Your task to perform on an android device: turn pop-ups on in chrome Image 0: 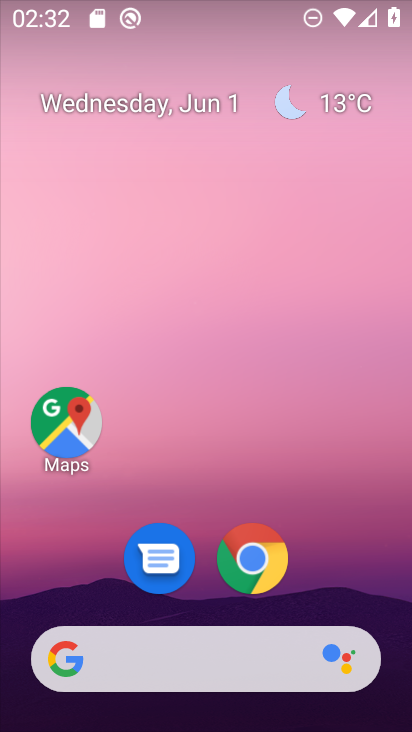
Step 0: click (251, 565)
Your task to perform on an android device: turn pop-ups on in chrome Image 1: 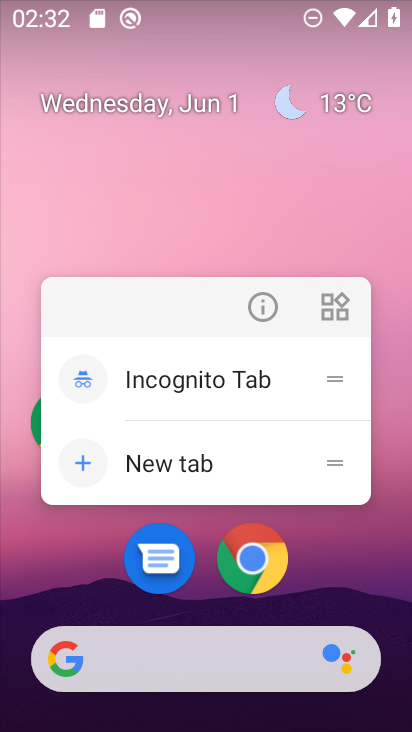
Step 1: click (251, 558)
Your task to perform on an android device: turn pop-ups on in chrome Image 2: 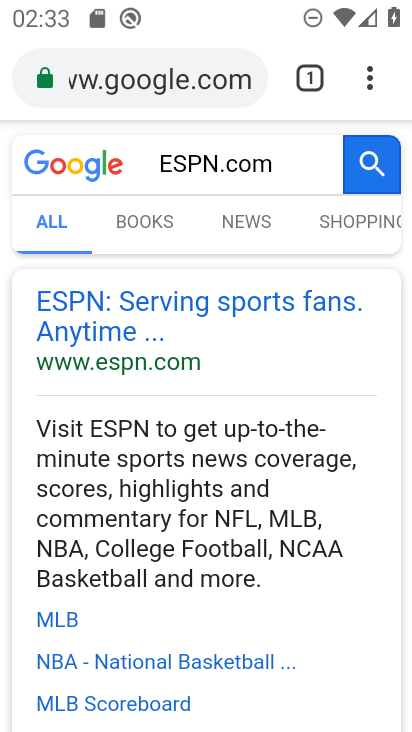
Step 2: click (366, 68)
Your task to perform on an android device: turn pop-ups on in chrome Image 3: 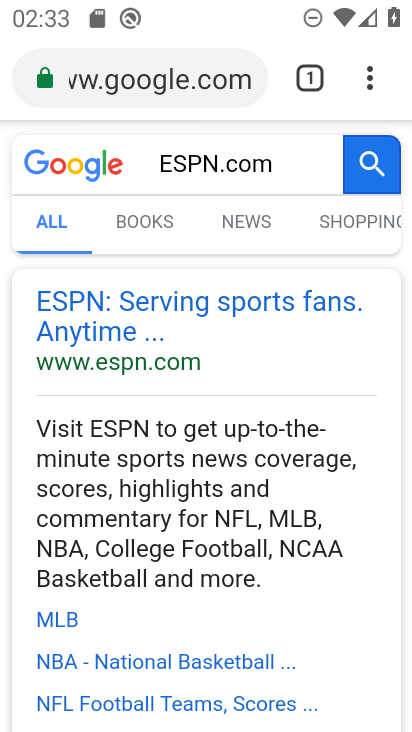
Step 3: click (370, 77)
Your task to perform on an android device: turn pop-ups on in chrome Image 4: 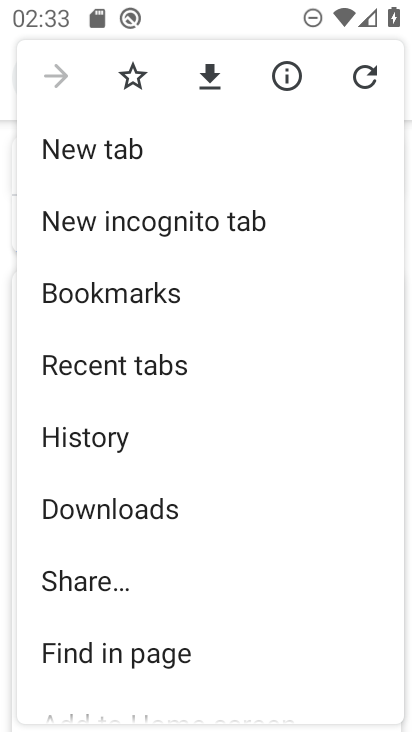
Step 4: drag from (201, 628) to (214, 332)
Your task to perform on an android device: turn pop-ups on in chrome Image 5: 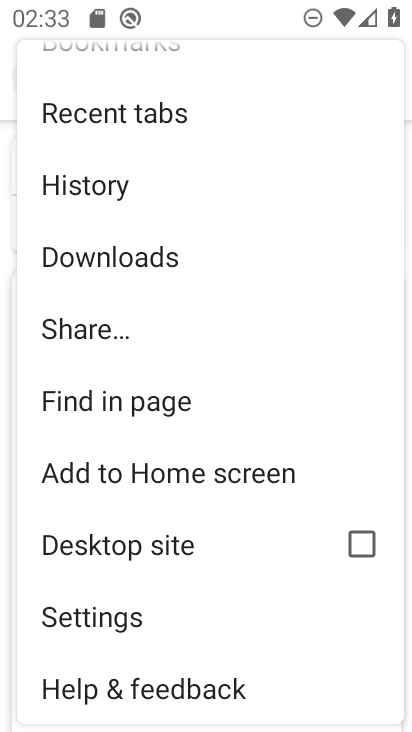
Step 5: click (124, 622)
Your task to perform on an android device: turn pop-ups on in chrome Image 6: 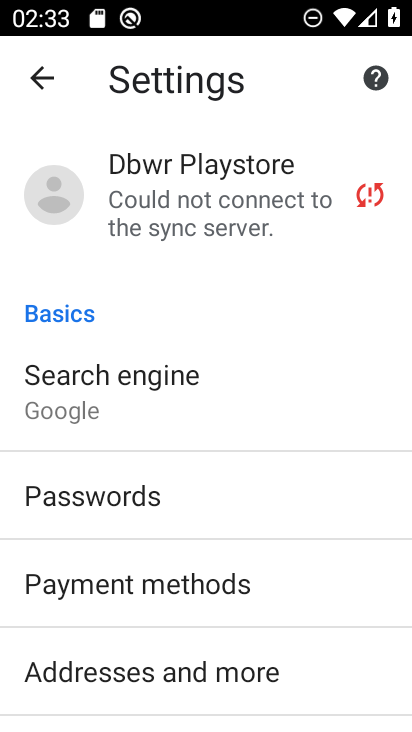
Step 6: drag from (328, 635) to (324, 237)
Your task to perform on an android device: turn pop-ups on in chrome Image 7: 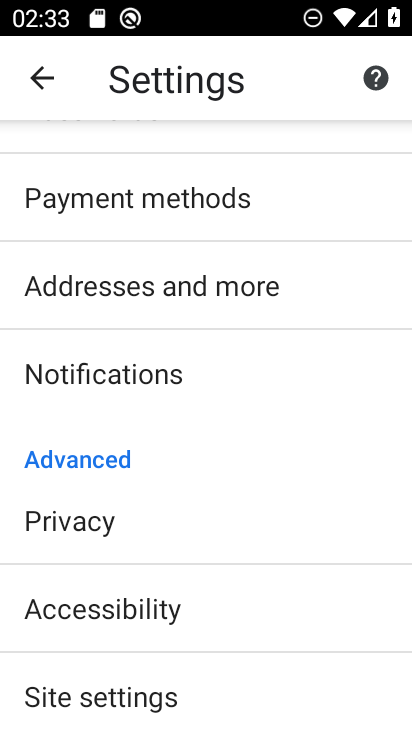
Step 7: drag from (286, 650) to (284, 334)
Your task to perform on an android device: turn pop-ups on in chrome Image 8: 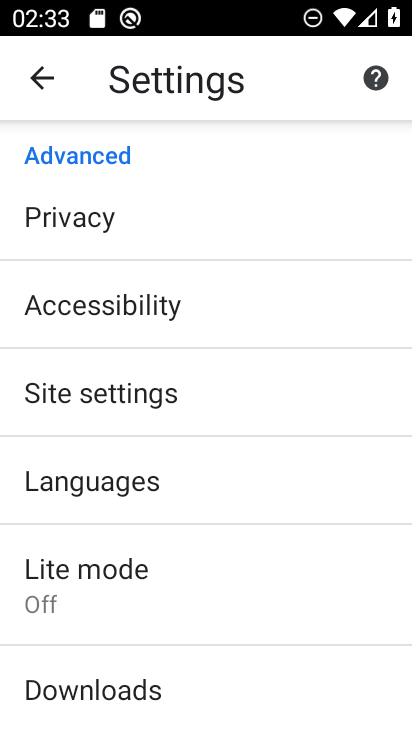
Step 8: drag from (266, 651) to (300, 354)
Your task to perform on an android device: turn pop-ups on in chrome Image 9: 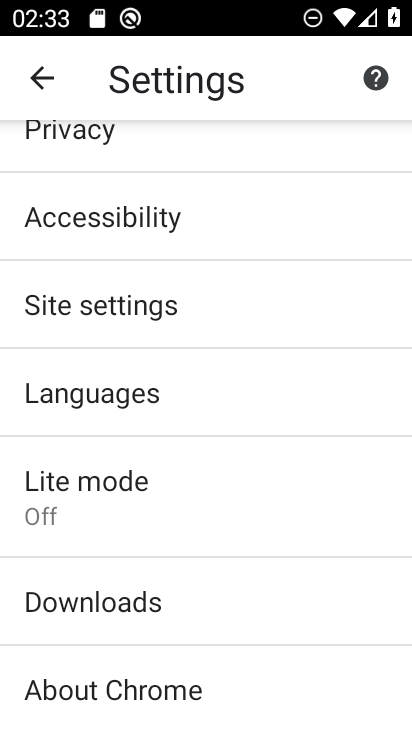
Step 9: click (101, 312)
Your task to perform on an android device: turn pop-ups on in chrome Image 10: 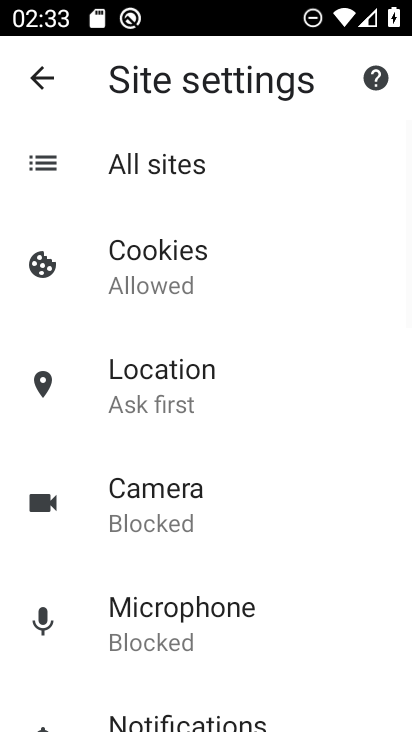
Step 10: drag from (309, 711) to (329, 250)
Your task to perform on an android device: turn pop-ups on in chrome Image 11: 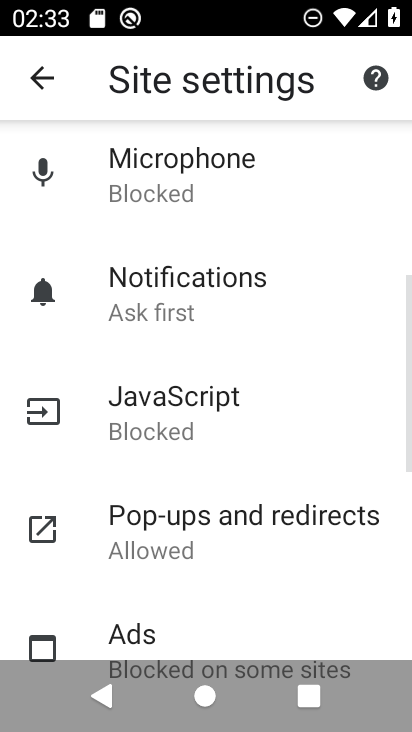
Step 11: click (205, 513)
Your task to perform on an android device: turn pop-ups on in chrome Image 12: 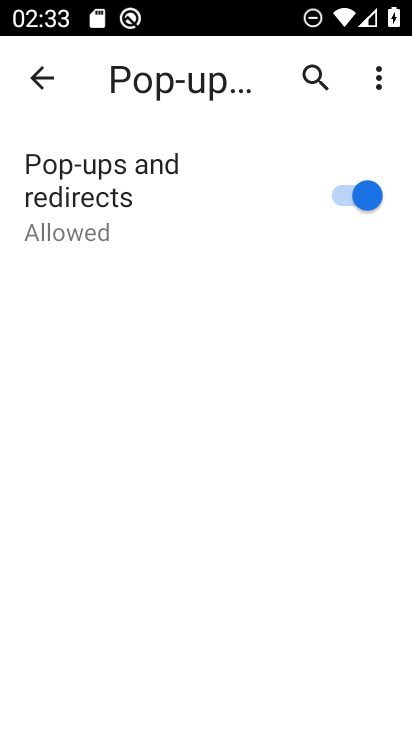
Step 12: task complete